Your task to perform on an android device: uninstall "Reddit" Image 0: 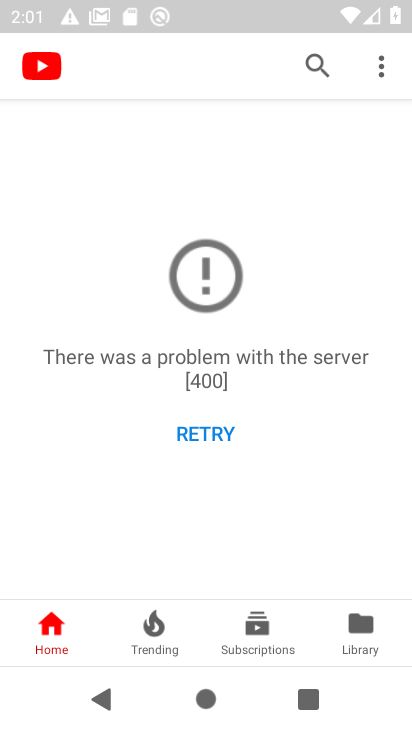
Step 0: press home button
Your task to perform on an android device: uninstall "Reddit" Image 1: 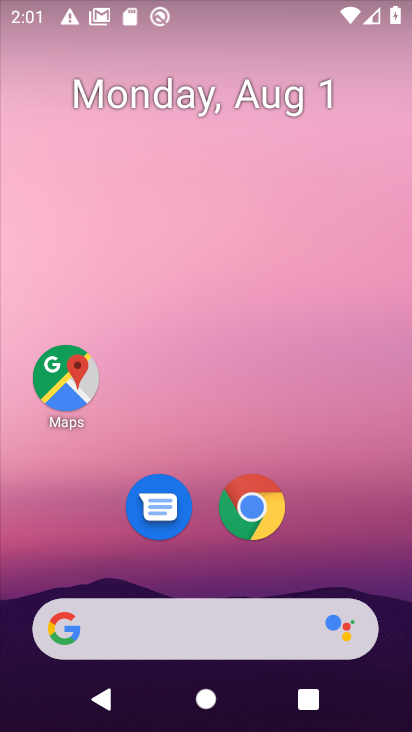
Step 1: drag from (202, 589) to (221, 29)
Your task to perform on an android device: uninstall "Reddit" Image 2: 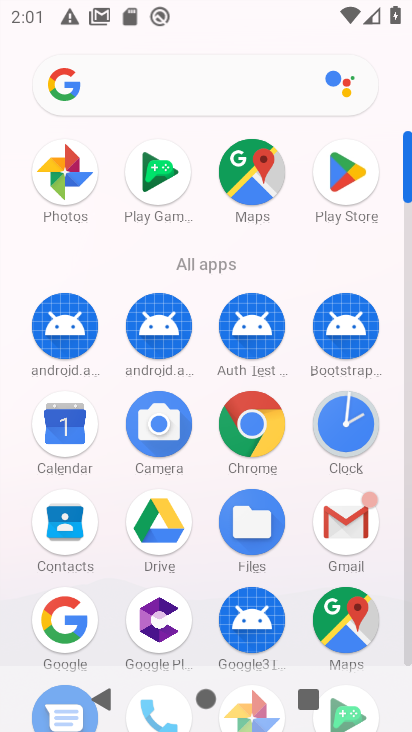
Step 2: drag from (222, 574) to (247, 10)
Your task to perform on an android device: uninstall "Reddit" Image 3: 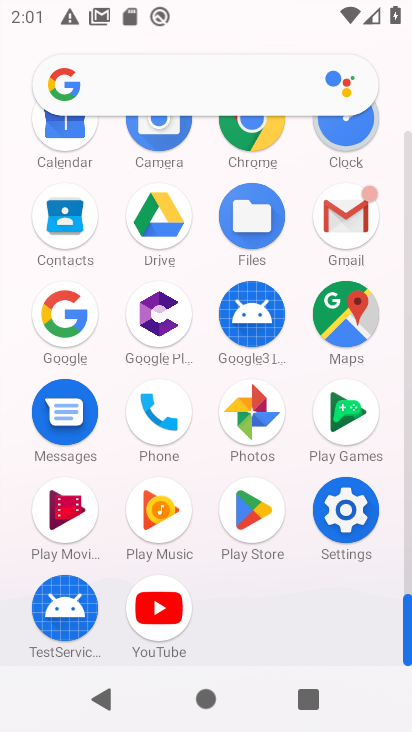
Step 3: click (250, 530)
Your task to perform on an android device: uninstall "Reddit" Image 4: 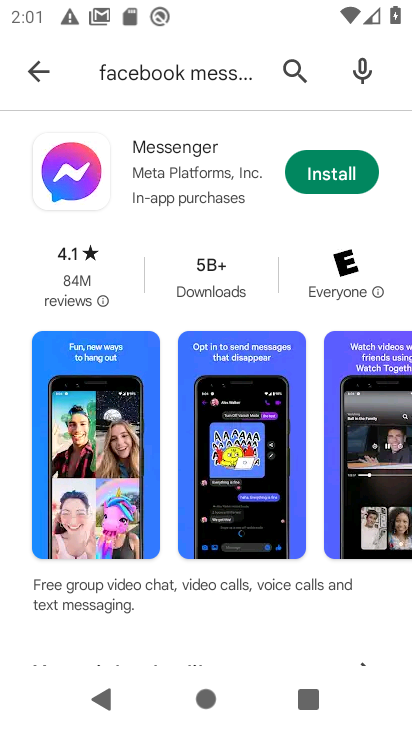
Step 4: click (191, 76)
Your task to perform on an android device: uninstall "Reddit" Image 5: 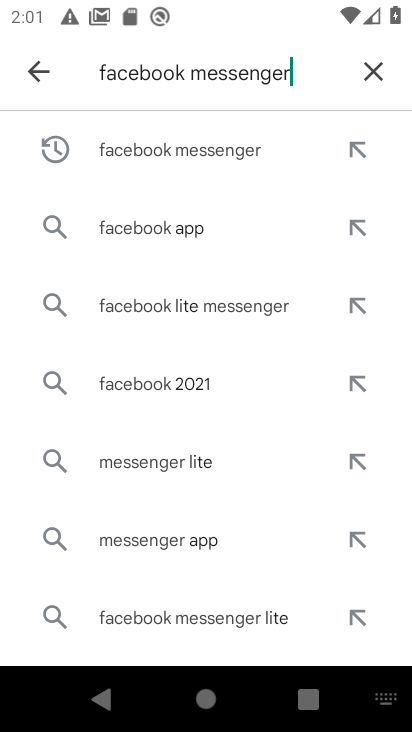
Step 5: click (375, 64)
Your task to perform on an android device: uninstall "Reddit" Image 6: 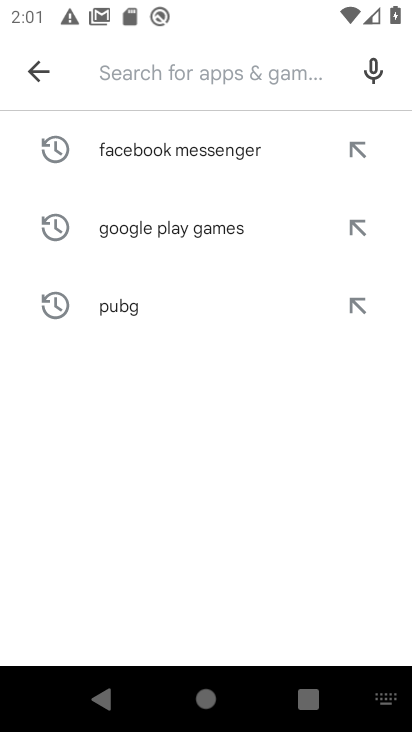
Step 6: type "Reddit"
Your task to perform on an android device: uninstall "Reddit" Image 7: 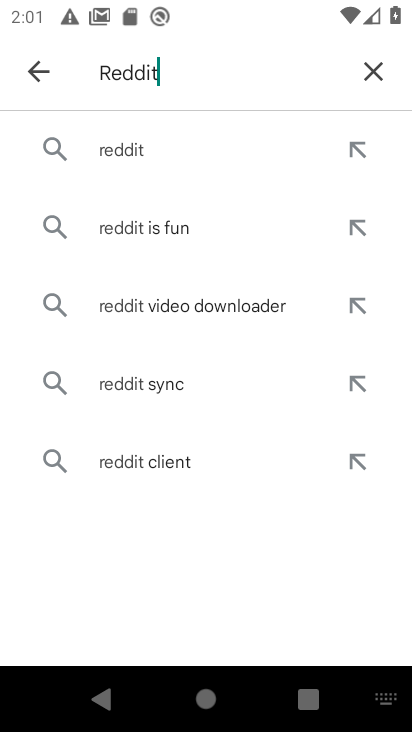
Step 7: click (125, 151)
Your task to perform on an android device: uninstall "Reddit" Image 8: 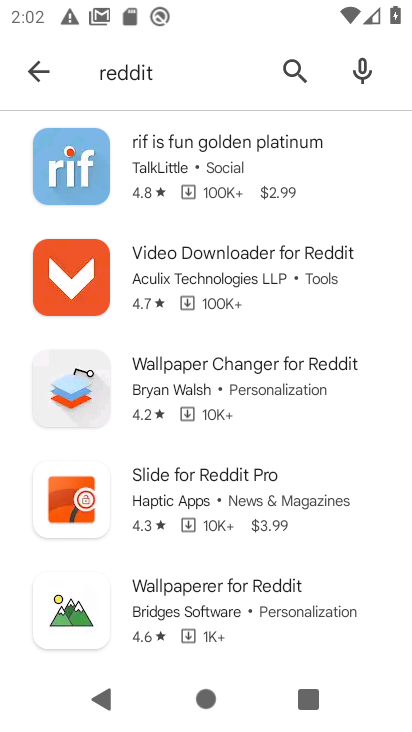
Step 8: task complete